Your task to perform on an android device: turn on bluetooth scan Image 0: 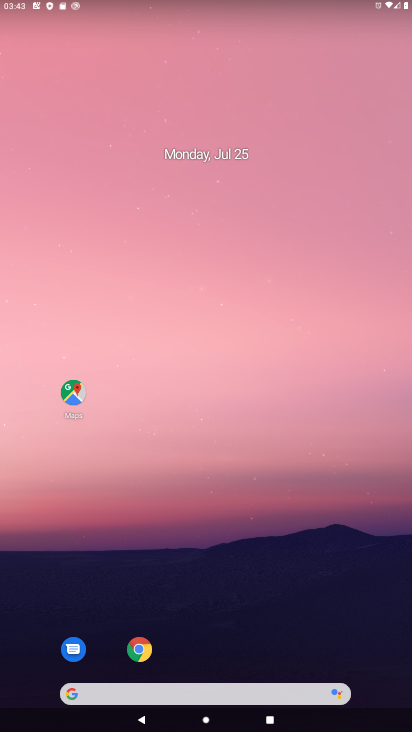
Step 0: drag from (388, 663) to (361, 199)
Your task to perform on an android device: turn on bluetooth scan Image 1: 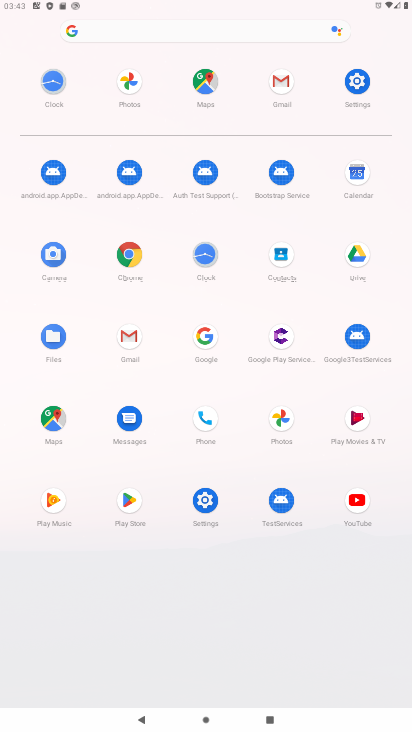
Step 1: click (205, 504)
Your task to perform on an android device: turn on bluetooth scan Image 2: 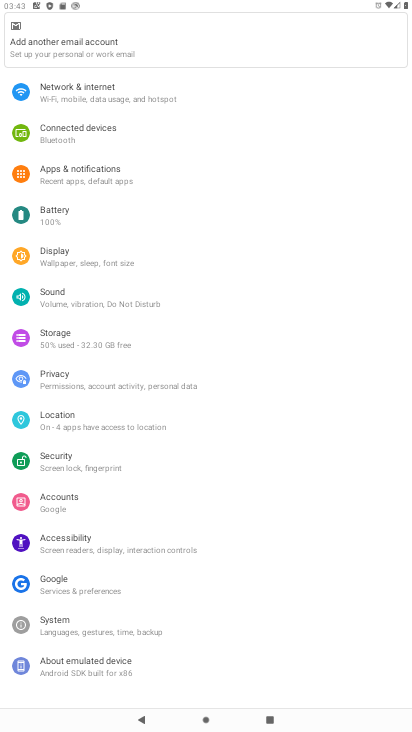
Step 2: click (55, 418)
Your task to perform on an android device: turn on bluetooth scan Image 3: 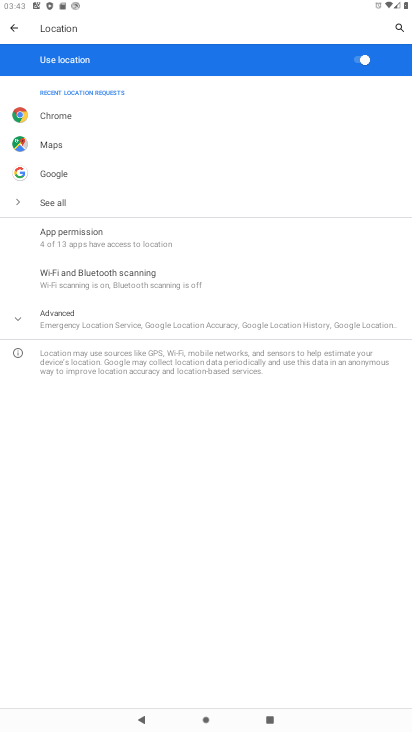
Step 3: click (102, 269)
Your task to perform on an android device: turn on bluetooth scan Image 4: 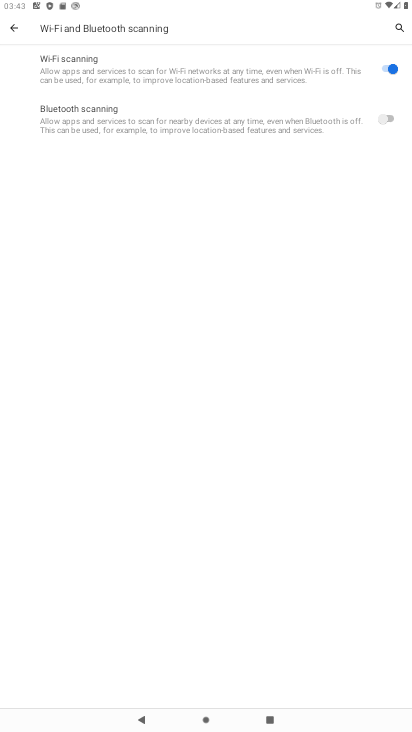
Step 4: click (388, 122)
Your task to perform on an android device: turn on bluetooth scan Image 5: 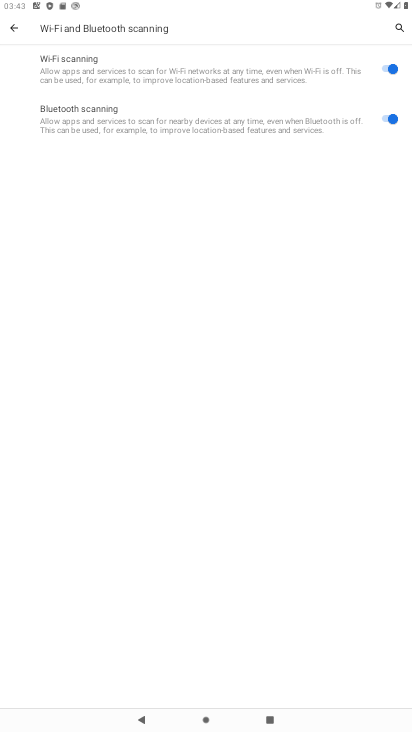
Step 5: task complete